Your task to perform on an android device: Is it going to rain this weekend? Image 0: 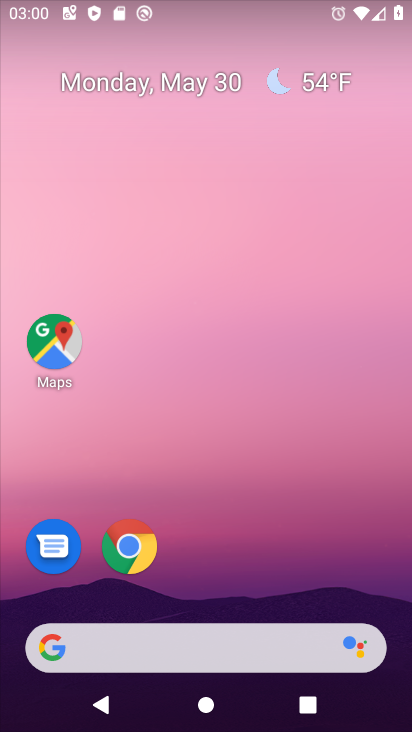
Step 0: drag from (217, 382) to (233, 0)
Your task to perform on an android device: Is it going to rain this weekend? Image 1: 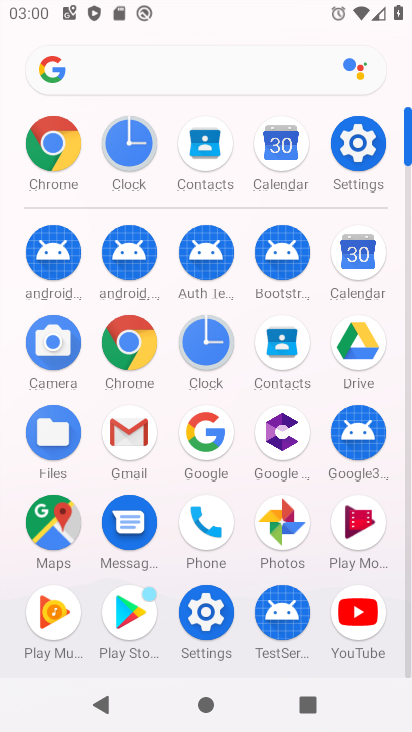
Step 1: press back button
Your task to perform on an android device: Is it going to rain this weekend? Image 2: 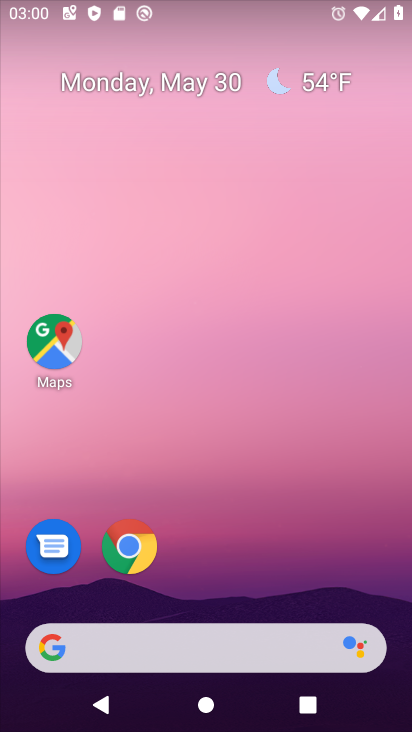
Step 2: click (329, 81)
Your task to perform on an android device: Is it going to rain this weekend? Image 3: 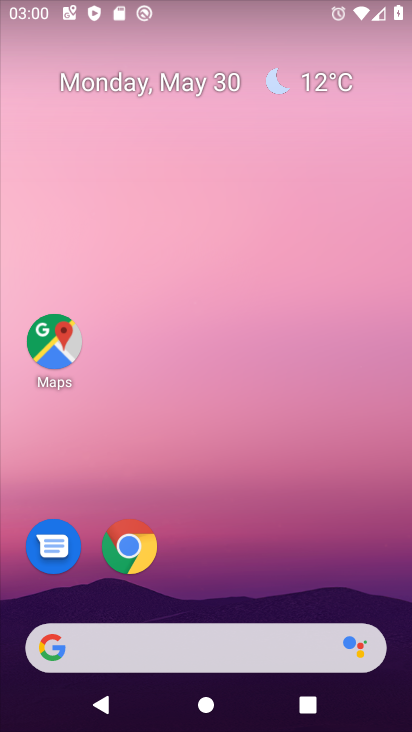
Step 3: click (325, 72)
Your task to perform on an android device: Is it going to rain this weekend? Image 4: 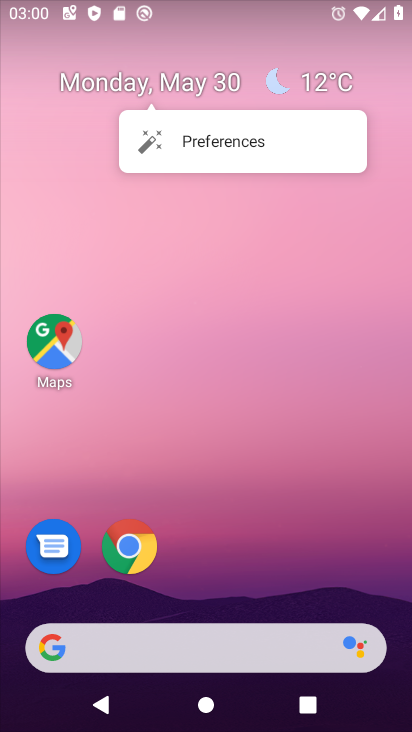
Step 4: click (322, 77)
Your task to perform on an android device: Is it going to rain this weekend? Image 5: 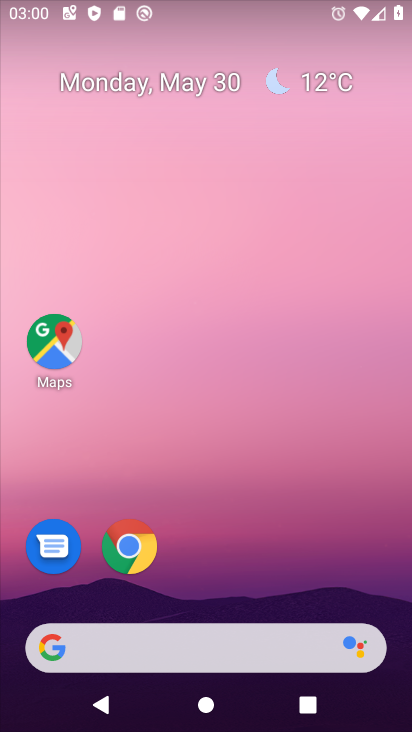
Step 5: click (283, 80)
Your task to perform on an android device: Is it going to rain this weekend? Image 6: 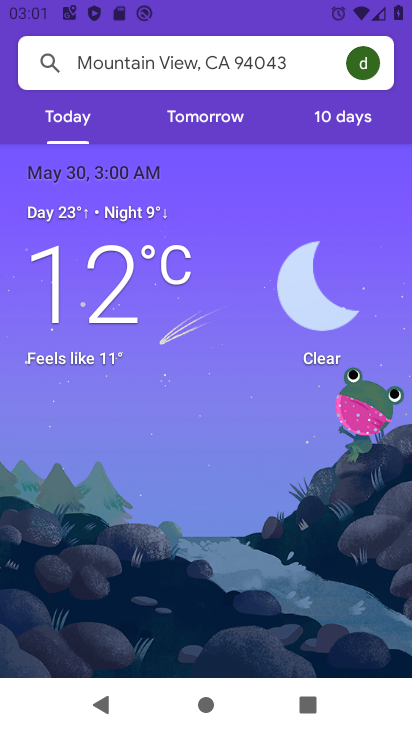
Step 6: drag from (194, 639) to (216, 146)
Your task to perform on an android device: Is it going to rain this weekend? Image 7: 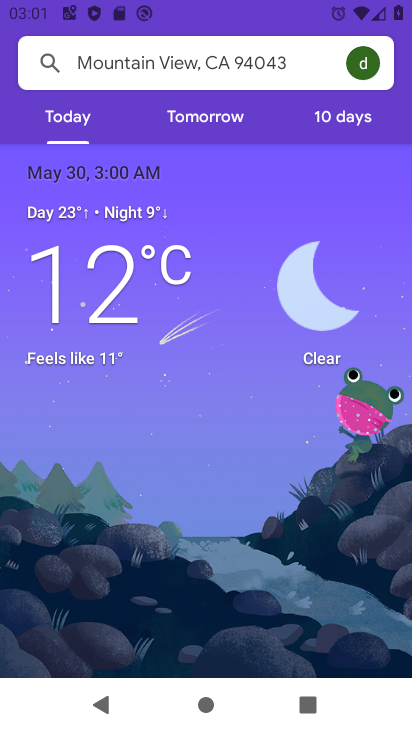
Step 7: click (244, 381)
Your task to perform on an android device: Is it going to rain this weekend? Image 8: 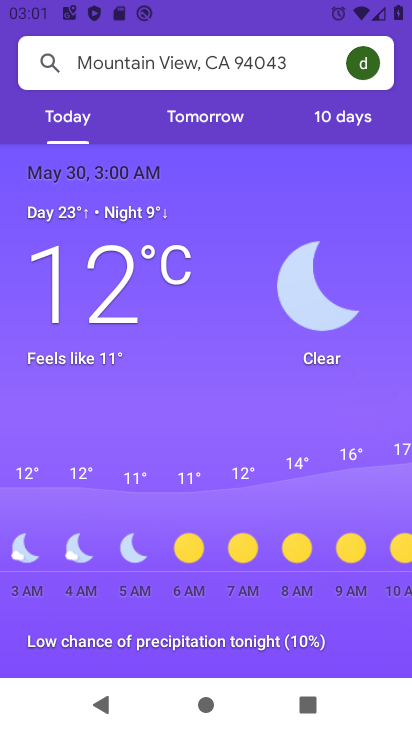
Step 8: click (346, 132)
Your task to perform on an android device: Is it going to rain this weekend? Image 9: 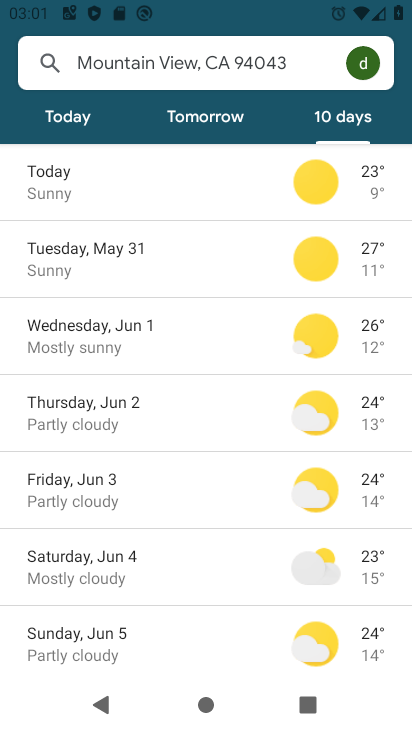
Step 9: task complete